Your task to perform on an android device: Go to notification settings Image 0: 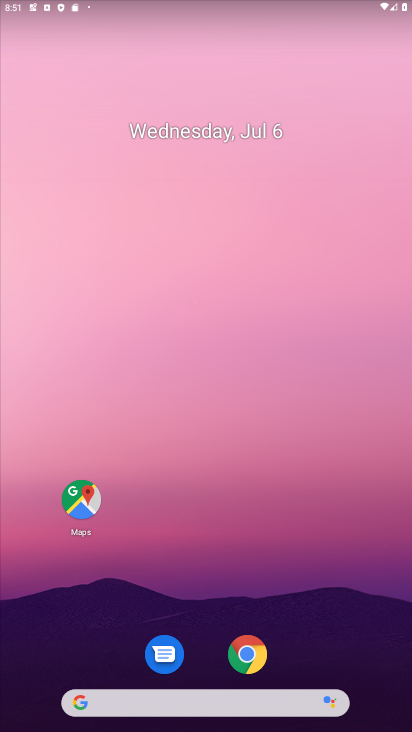
Step 0: drag from (224, 540) to (232, 148)
Your task to perform on an android device: Go to notification settings Image 1: 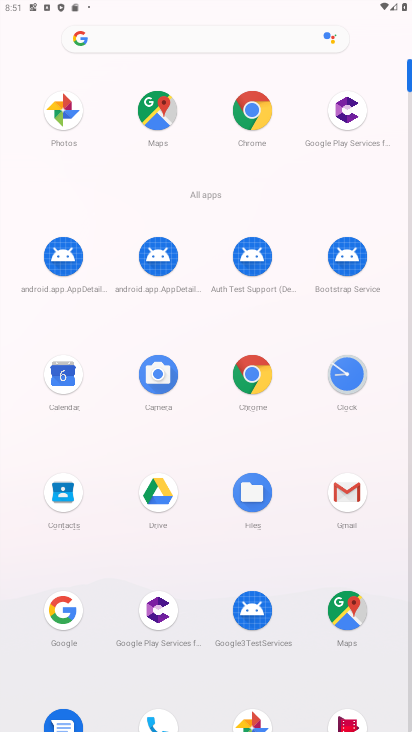
Step 1: drag from (218, 6) to (208, 622)
Your task to perform on an android device: Go to notification settings Image 2: 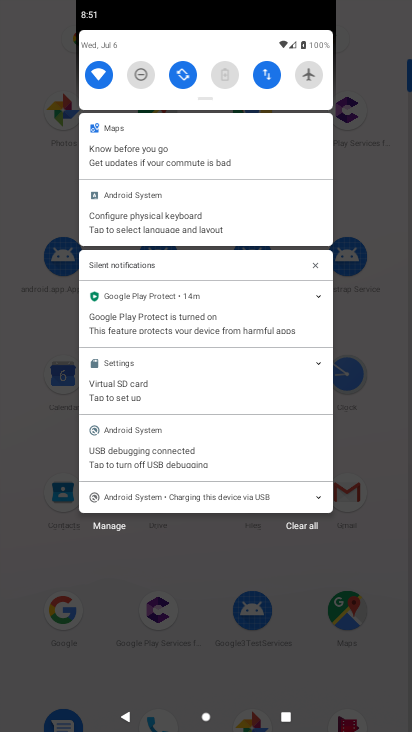
Step 2: drag from (203, 47) to (147, 583)
Your task to perform on an android device: Go to notification settings Image 3: 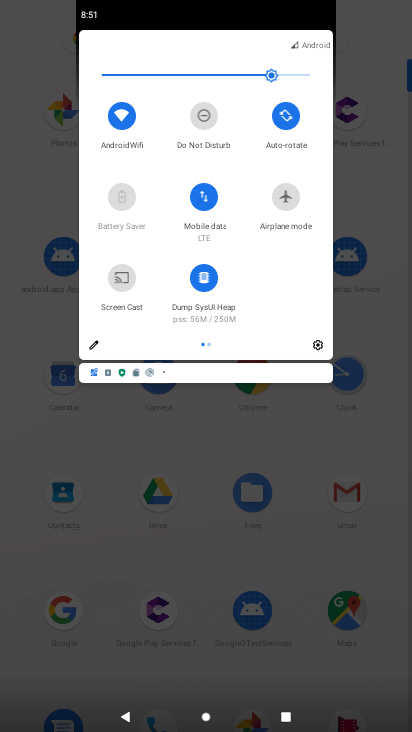
Step 3: click (315, 352)
Your task to perform on an android device: Go to notification settings Image 4: 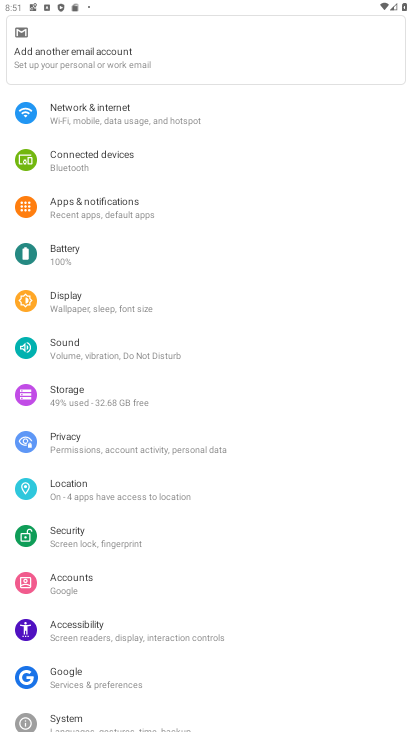
Step 4: click (230, 231)
Your task to perform on an android device: Go to notification settings Image 5: 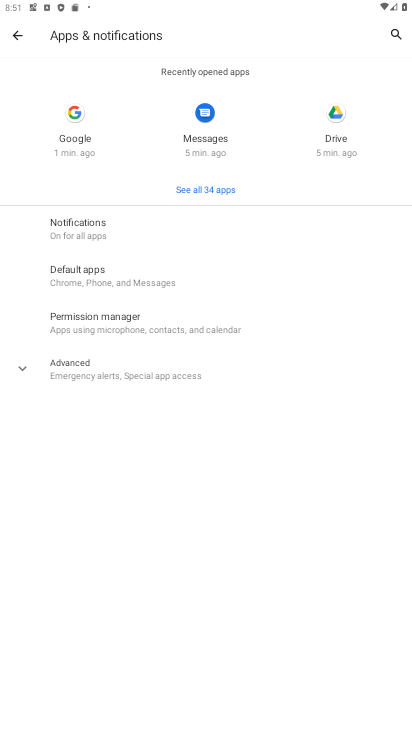
Step 5: task complete